Your task to perform on an android device: Go to calendar. Show me events next week Image 0: 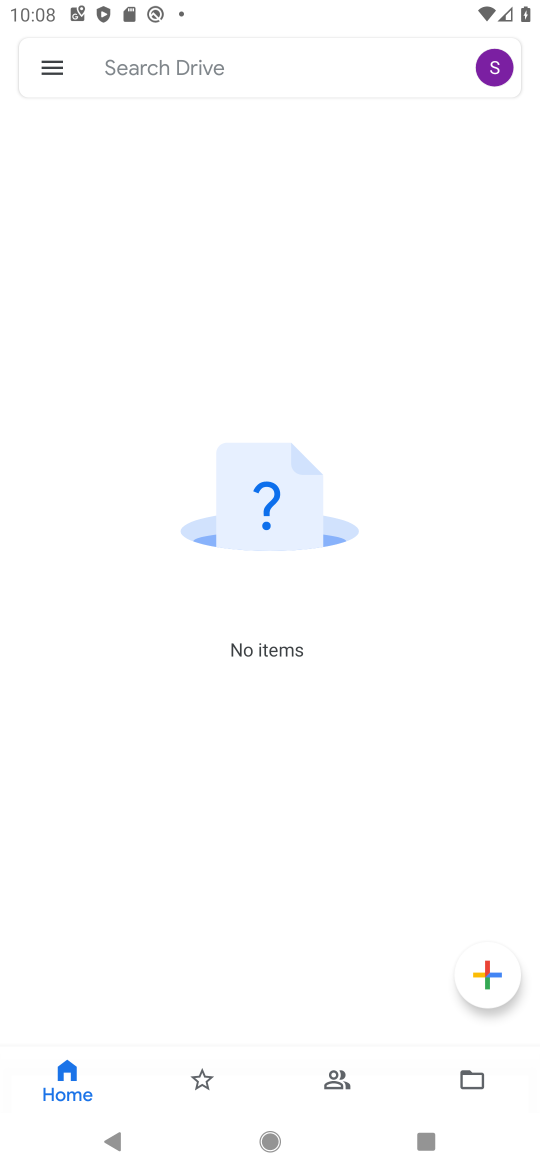
Step 0: press home button
Your task to perform on an android device: Go to calendar. Show me events next week Image 1: 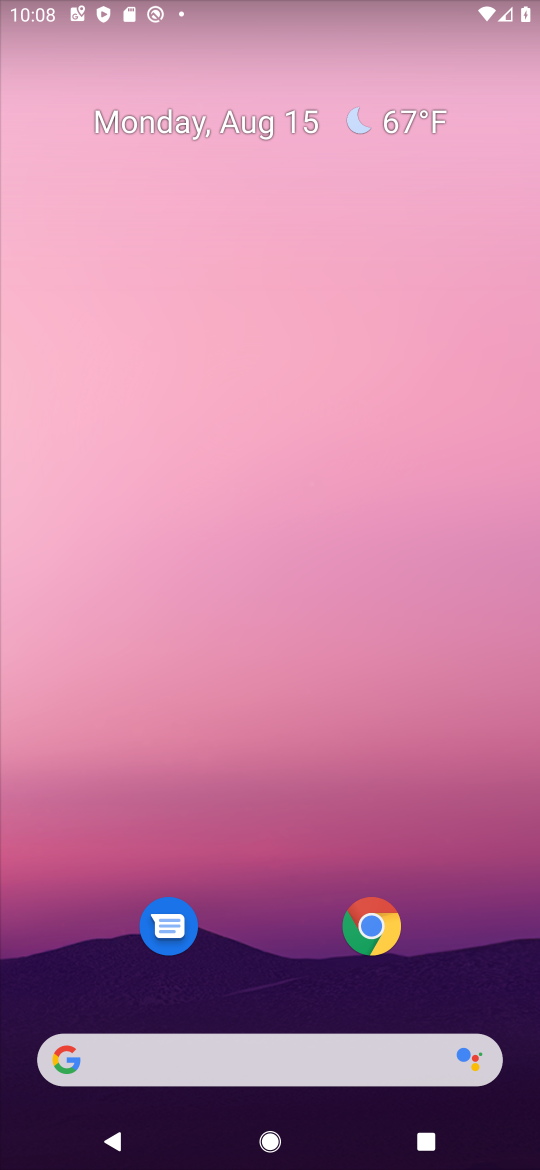
Step 1: drag from (271, 964) to (261, 298)
Your task to perform on an android device: Go to calendar. Show me events next week Image 2: 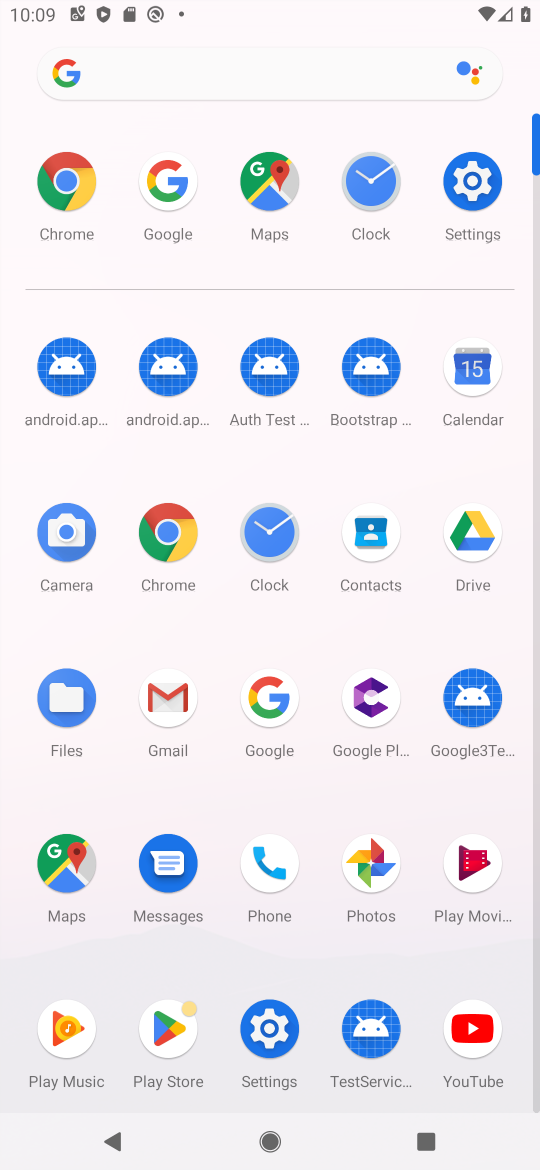
Step 2: click (489, 378)
Your task to perform on an android device: Go to calendar. Show me events next week Image 3: 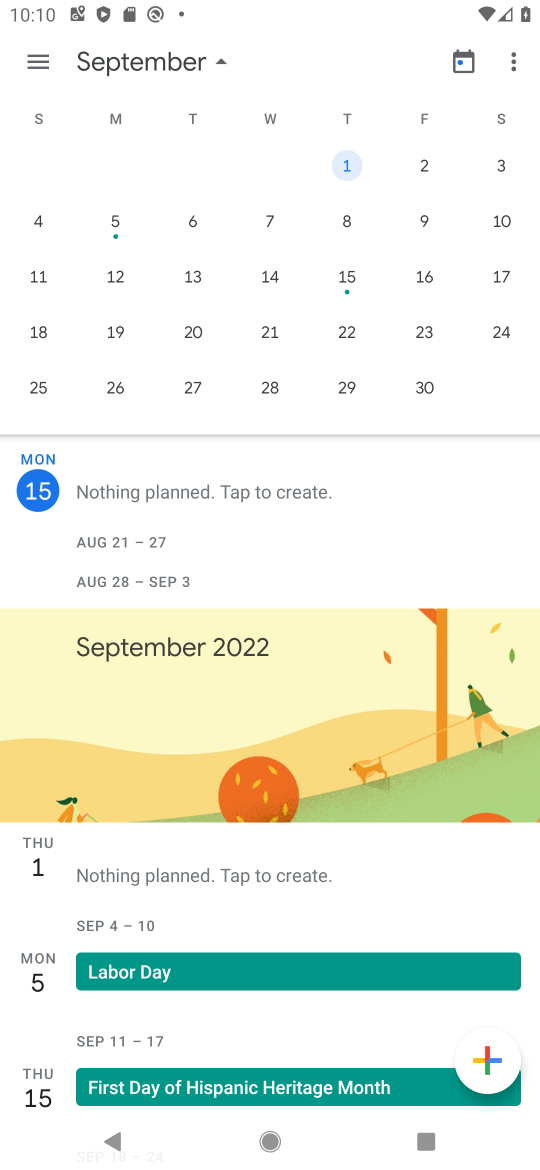
Step 3: press home button
Your task to perform on an android device: Go to calendar. Show me events next week Image 4: 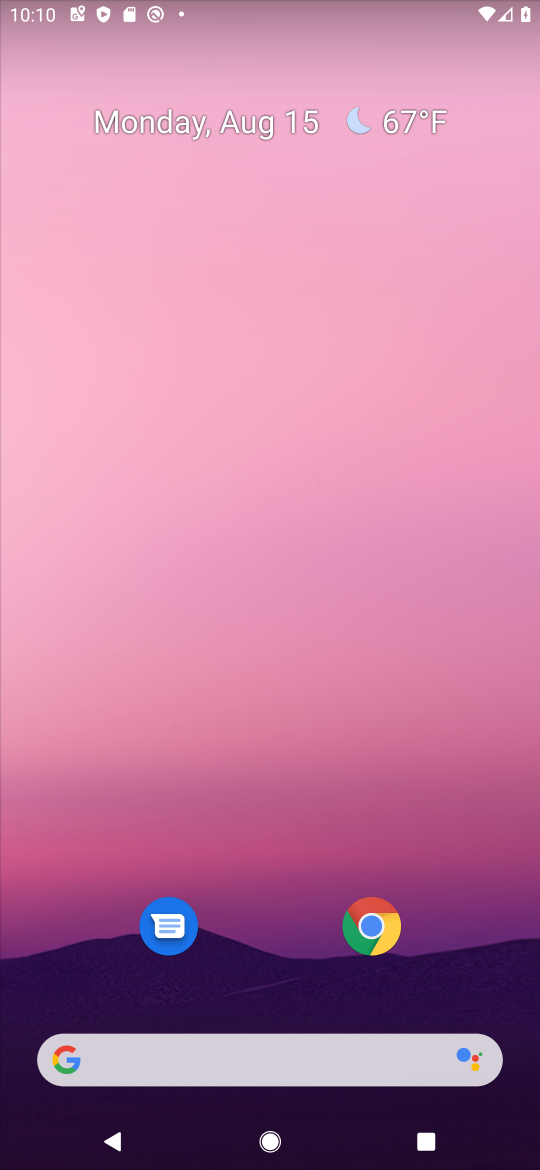
Step 4: drag from (356, 978) to (417, 21)
Your task to perform on an android device: Go to calendar. Show me events next week Image 5: 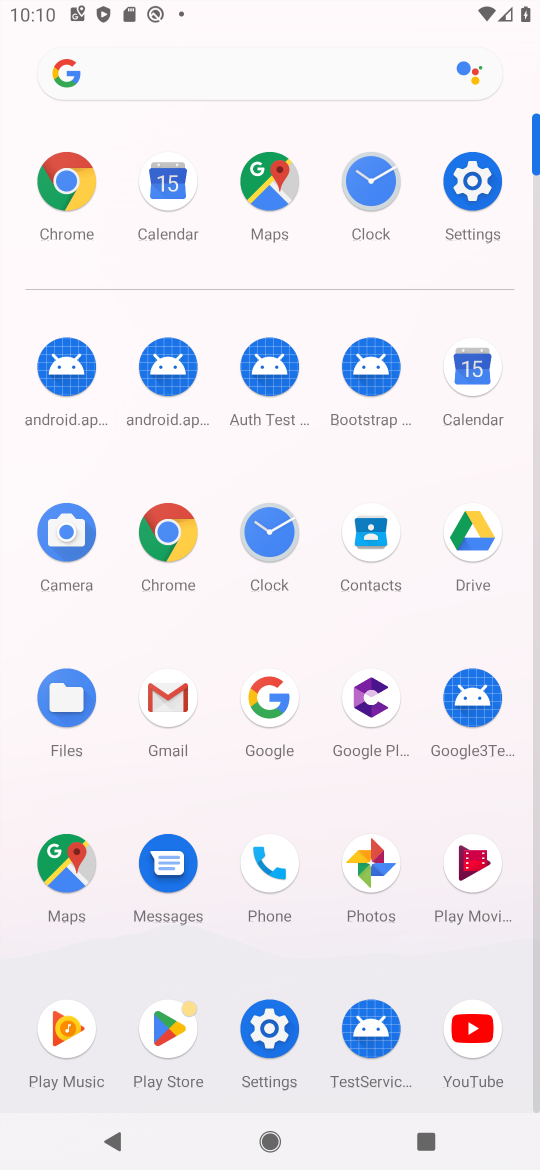
Step 5: click (493, 388)
Your task to perform on an android device: Go to calendar. Show me events next week Image 6: 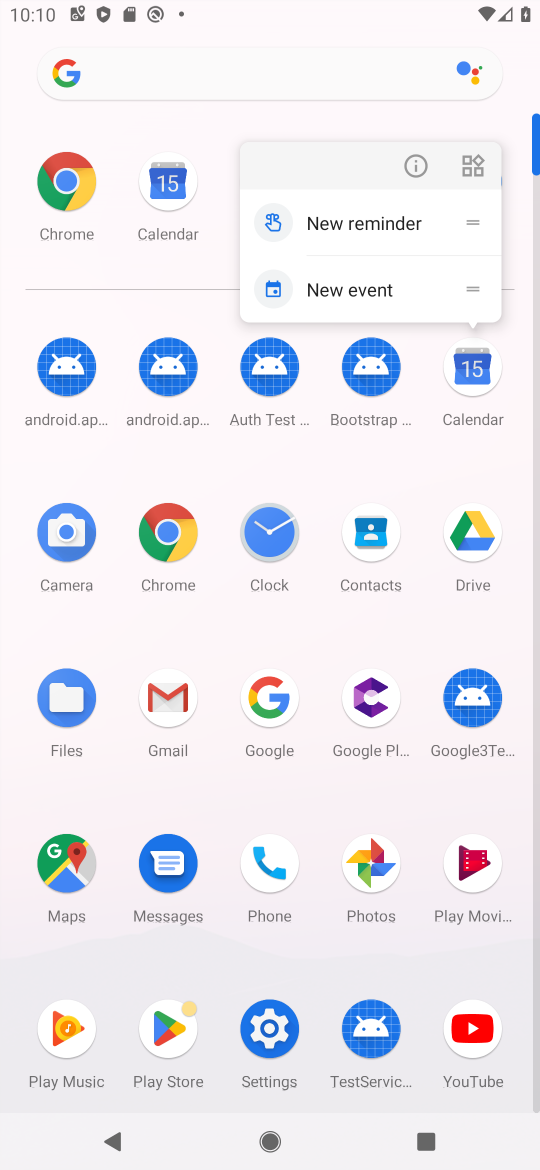
Step 6: click (493, 388)
Your task to perform on an android device: Go to calendar. Show me events next week Image 7: 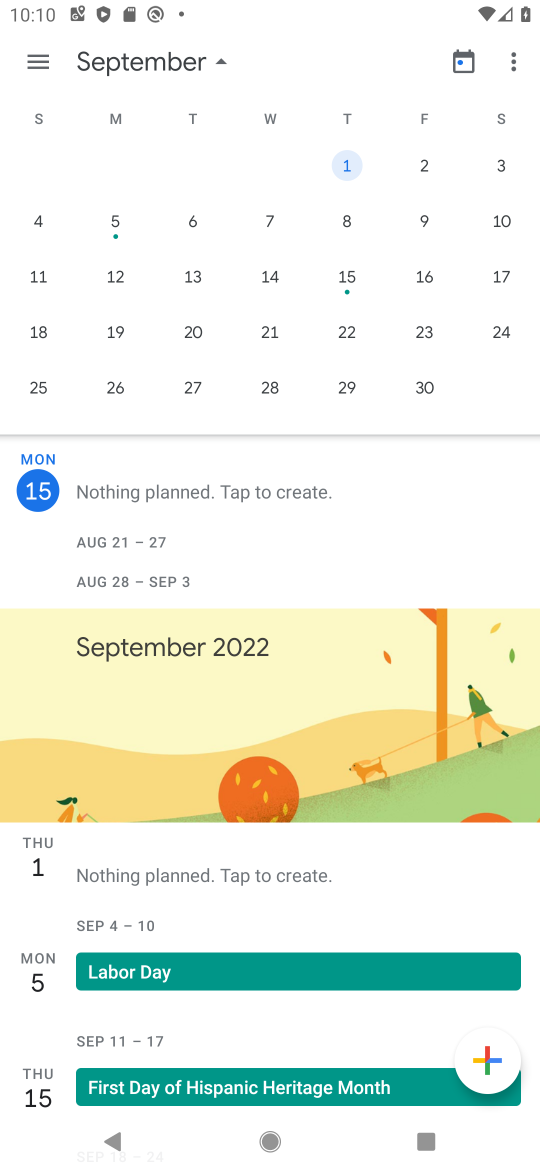
Step 7: drag from (61, 325) to (506, 244)
Your task to perform on an android device: Go to calendar. Show me events next week Image 8: 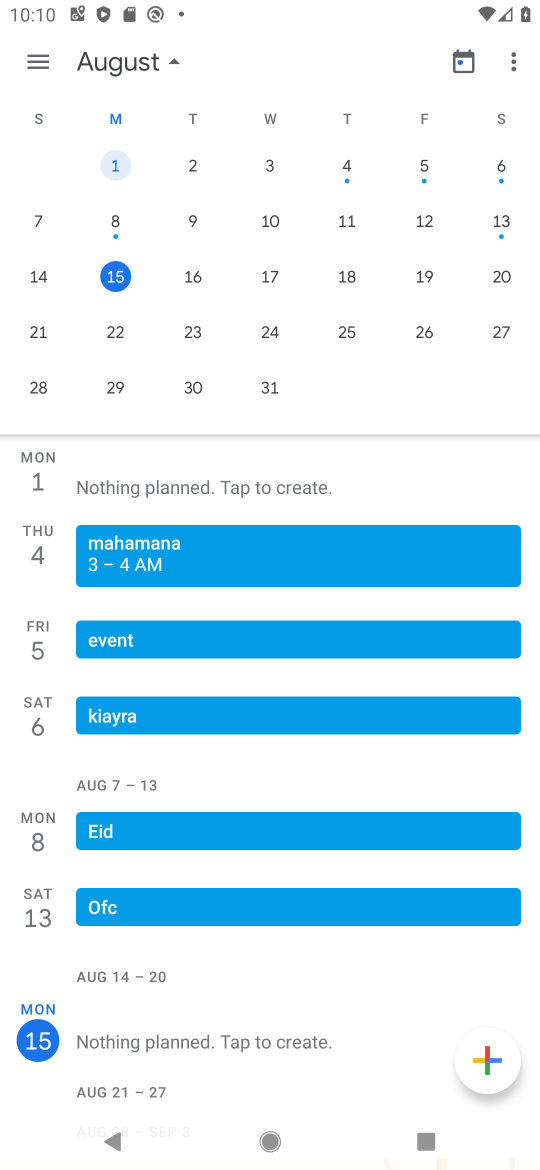
Step 8: click (122, 340)
Your task to perform on an android device: Go to calendar. Show me events next week Image 9: 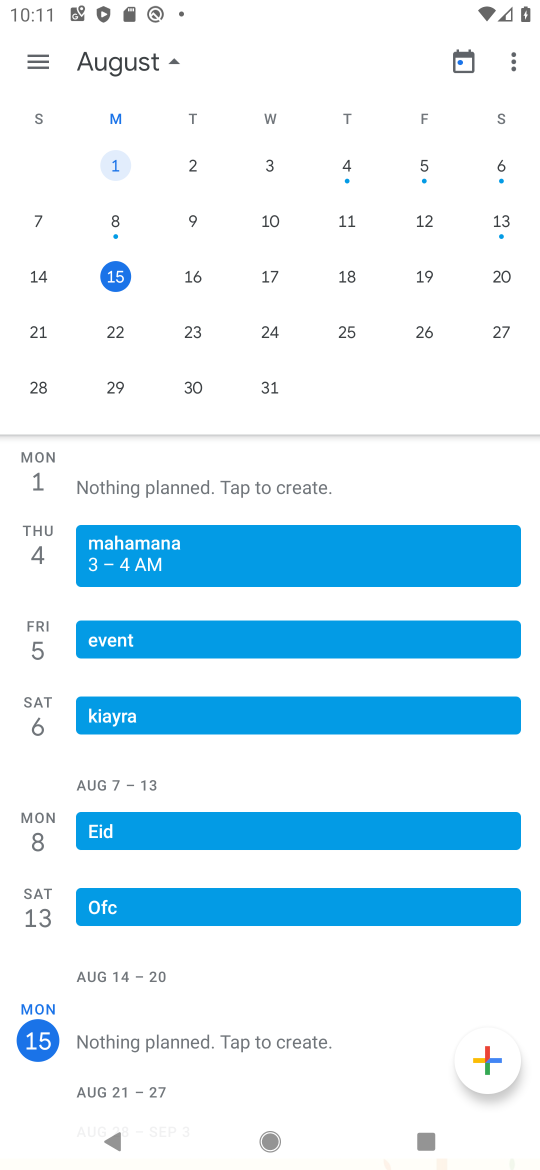
Step 9: task complete